Your task to perform on an android device: stop showing notifications on the lock screen Image 0: 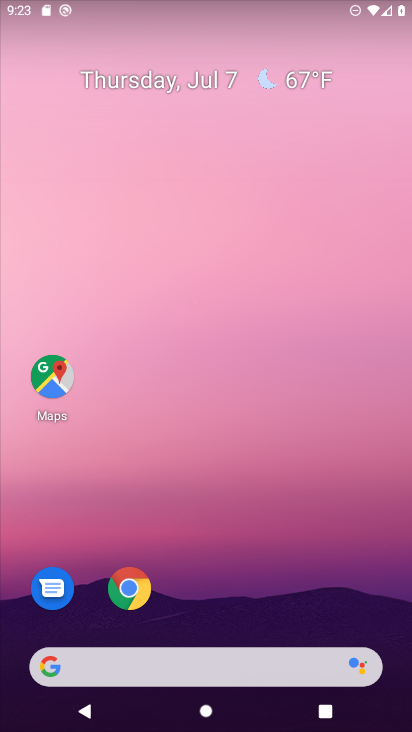
Step 0: drag from (242, 604) to (210, 15)
Your task to perform on an android device: stop showing notifications on the lock screen Image 1: 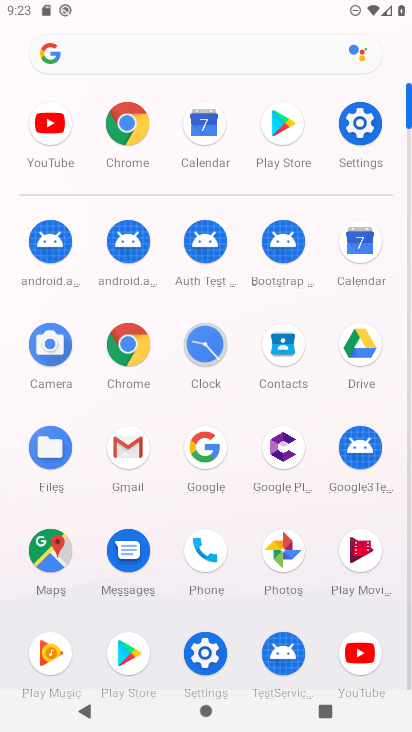
Step 1: click (358, 123)
Your task to perform on an android device: stop showing notifications on the lock screen Image 2: 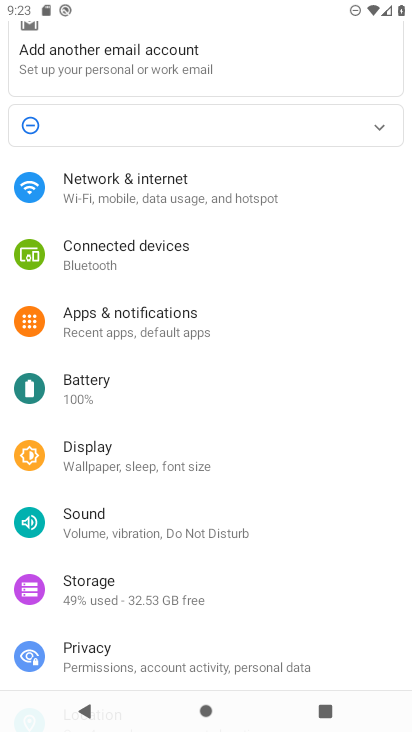
Step 2: click (134, 315)
Your task to perform on an android device: stop showing notifications on the lock screen Image 3: 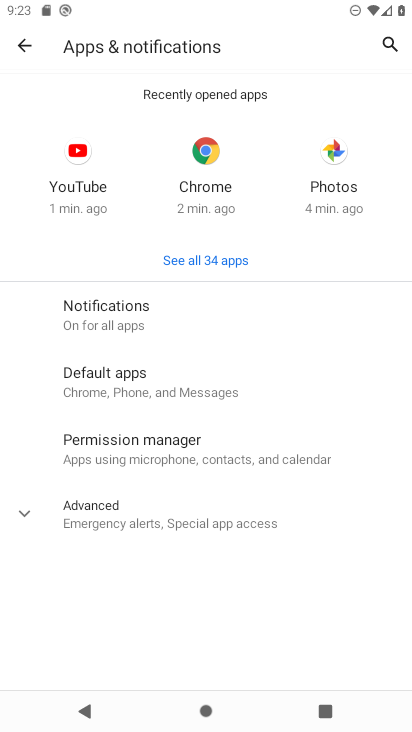
Step 3: click (113, 320)
Your task to perform on an android device: stop showing notifications on the lock screen Image 4: 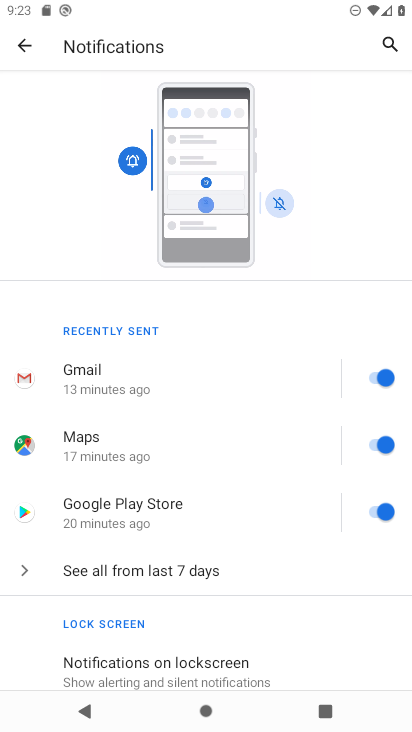
Step 4: click (131, 660)
Your task to perform on an android device: stop showing notifications on the lock screen Image 5: 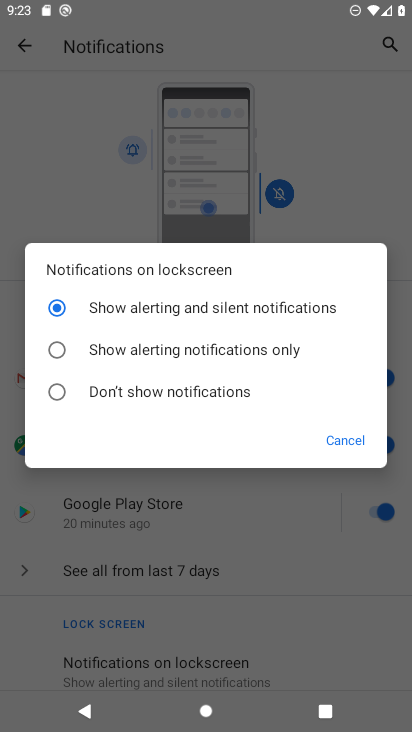
Step 5: click (55, 390)
Your task to perform on an android device: stop showing notifications on the lock screen Image 6: 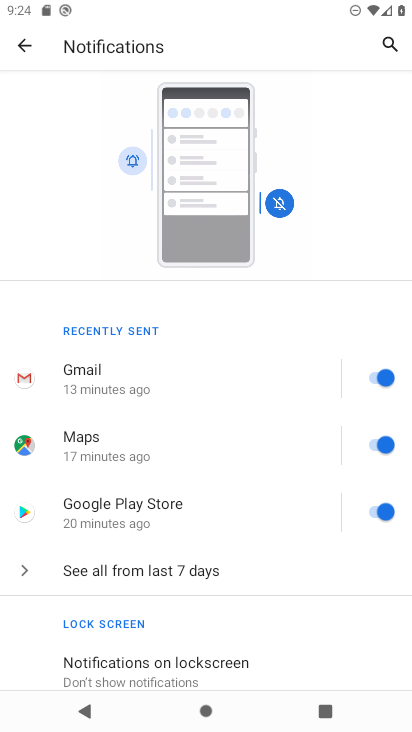
Step 6: task complete